Your task to perform on an android device: Go to calendar. Show me events next week Image 0: 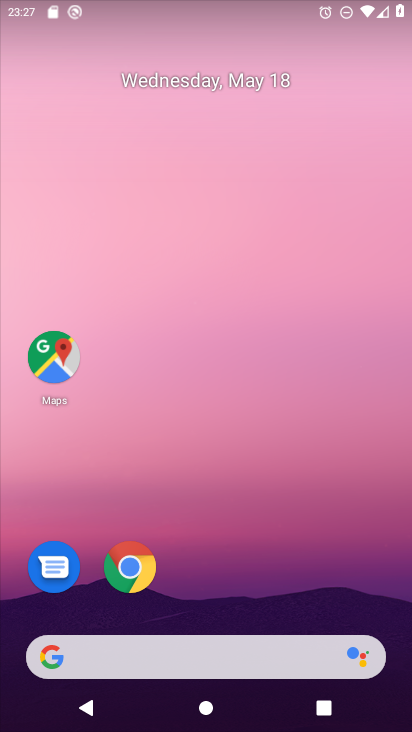
Step 0: drag from (309, 686) to (234, 150)
Your task to perform on an android device: Go to calendar. Show me events next week Image 1: 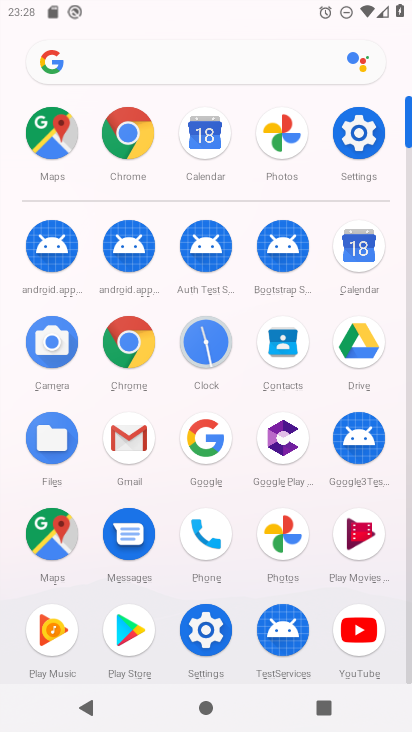
Step 1: click (345, 251)
Your task to perform on an android device: Go to calendar. Show me events next week Image 2: 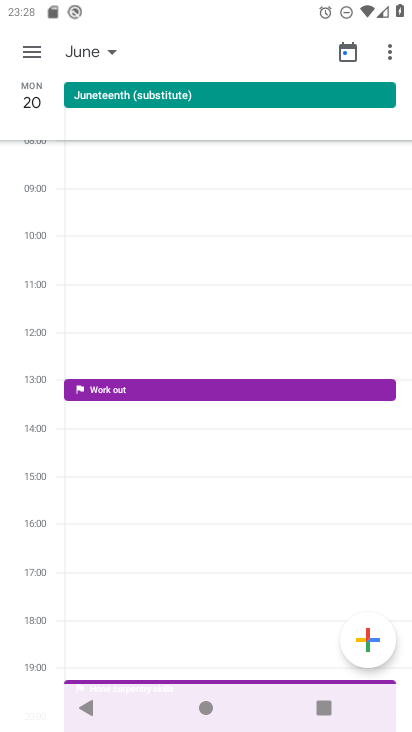
Step 2: click (33, 54)
Your task to perform on an android device: Go to calendar. Show me events next week Image 3: 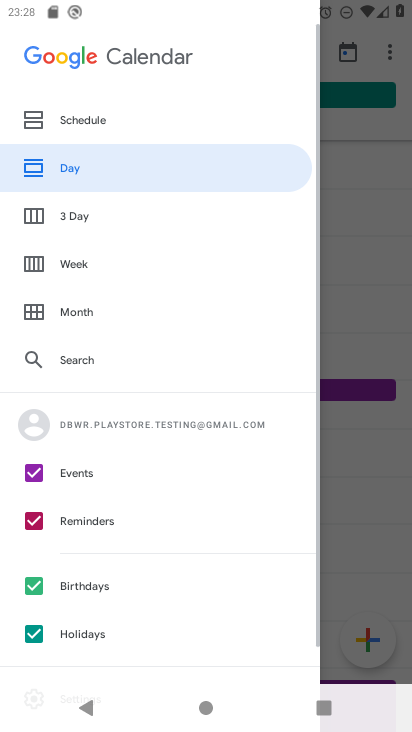
Step 3: click (100, 310)
Your task to perform on an android device: Go to calendar. Show me events next week Image 4: 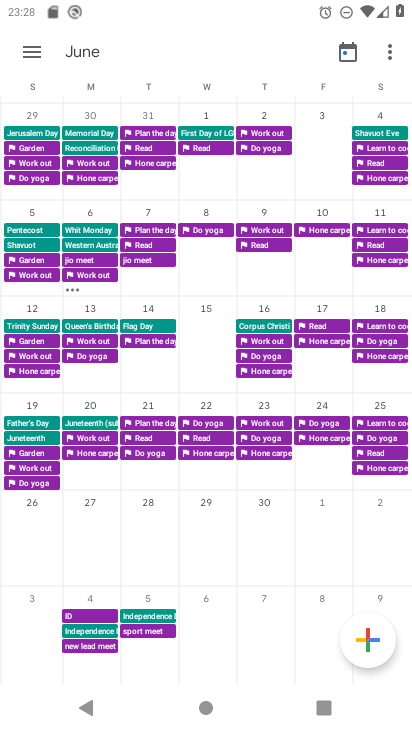
Step 4: drag from (33, 376) to (384, 357)
Your task to perform on an android device: Go to calendar. Show me events next week Image 5: 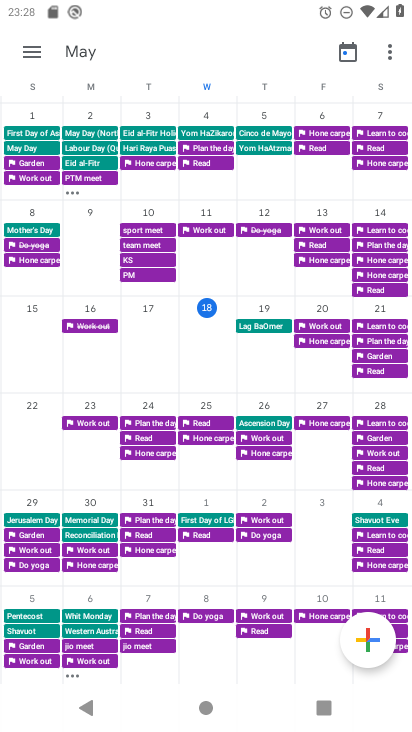
Step 5: click (99, 419)
Your task to perform on an android device: Go to calendar. Show me events next week Image 6: 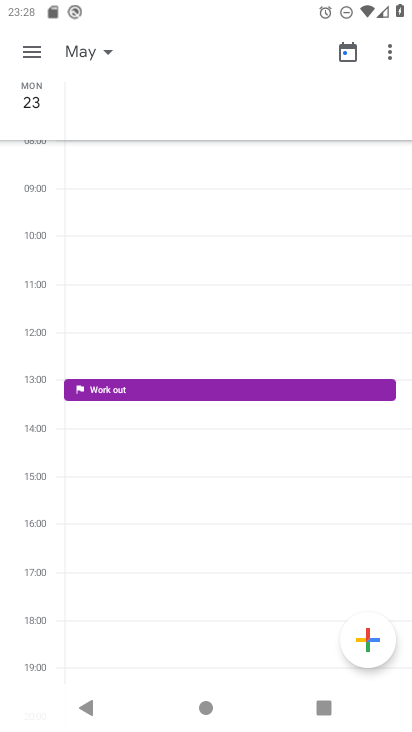
Step 6: task complete